Your task to perform on an android device: Go to notification settings Image 0: 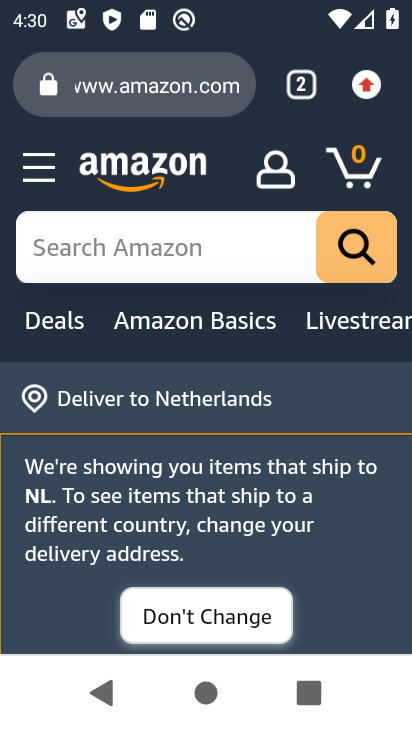
Step 0: press home button
Your task to perform on an android device: Go to notification settings Image 1: 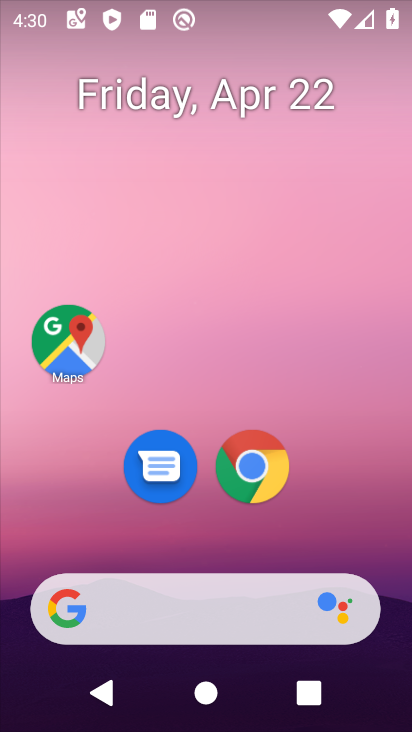
Step 1: drag from (360, 497) to (301, 111)
Your task to perform on an android device: Go to notification settings Image 2: 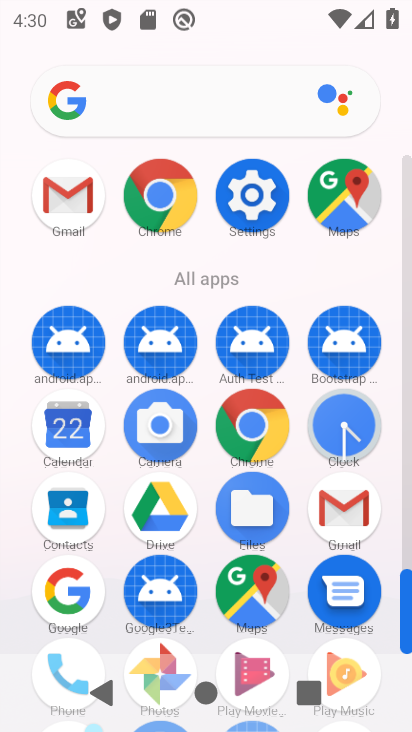
Step 2: click (235, 194)
Your task to perform on an android device: Go to notification settings Image 3: 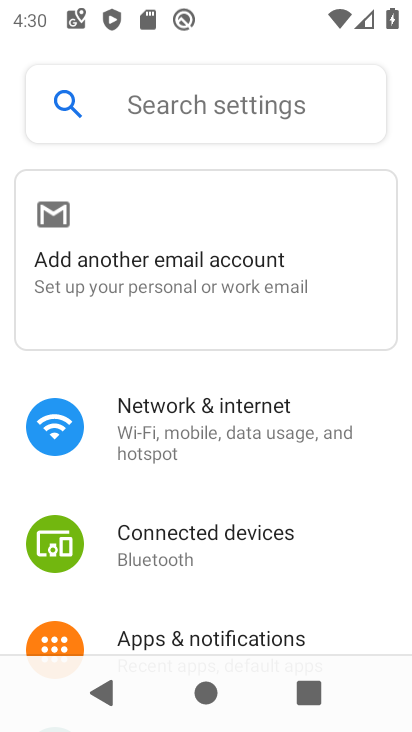
Step 3: click (276, 633)
Your task to perform on an android device: Go to notification settings Image 4: 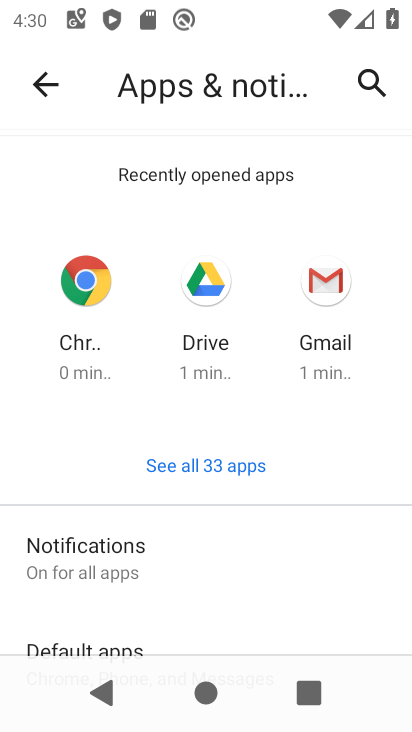
Step 4: click (254, 568)
Your task to perform on an android device: Go to notification settings Image 5: 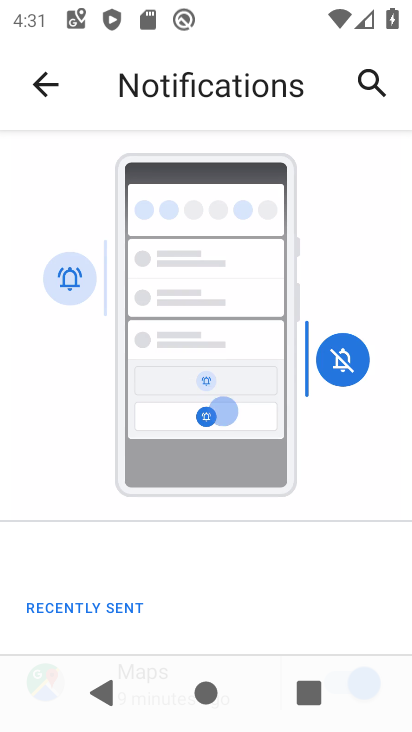
Step 5: drag from (261, 594) to (226, 257)
Your task to perform on an android device: Go to notification settings Image 6: 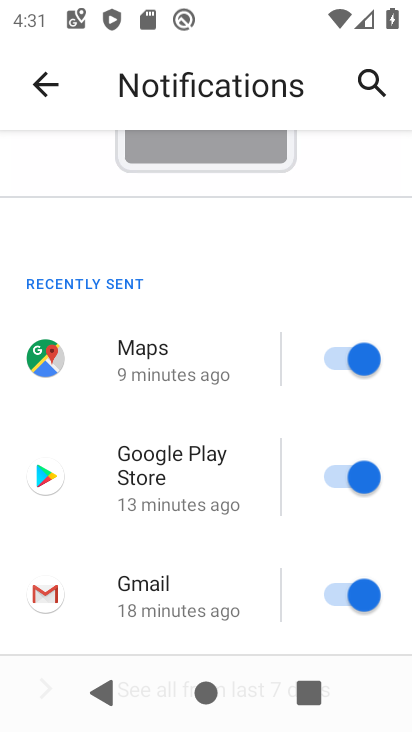
Step 6: drag from (230, 648) to (189, 329)
Your task to perform on an android device: Go to notification settings Image 7: 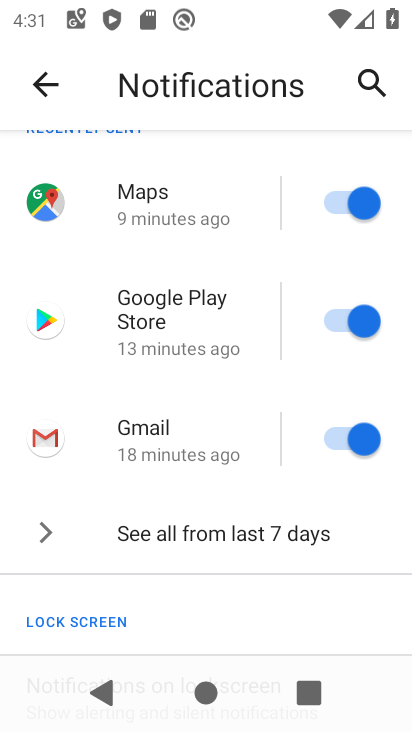
Step 7: drag from (256, 587) to (232, 234)
Your task to perform on an android device: Go to notification settings Image 8: 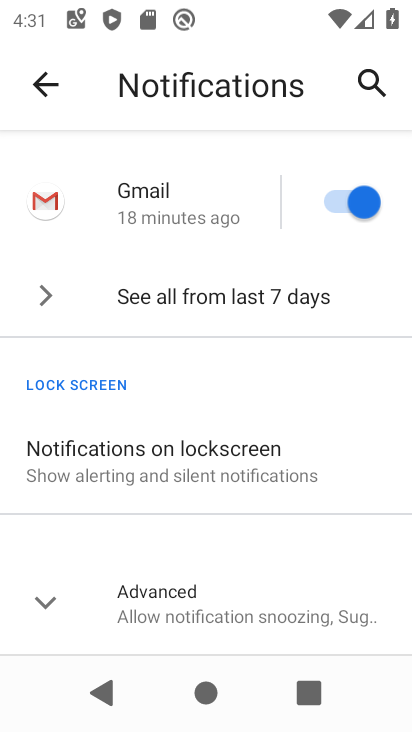
Step 8: click (233, 612)
Your task to perform on an android device: Go to notification settings Image 9: 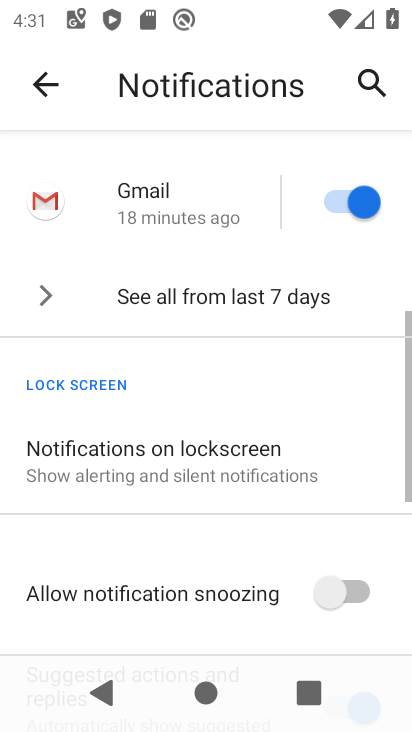
Step 9: task complete